Your task to perform on an android device: Open location settings Image 0: 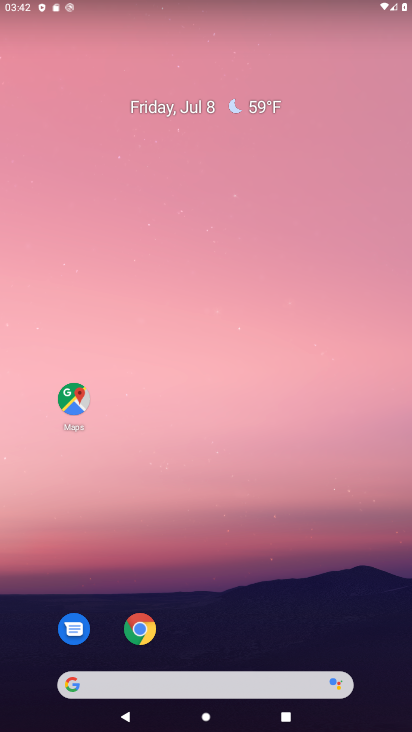
Step 0: press home button
Your task to perform on an android device: Open location settings Image 1: 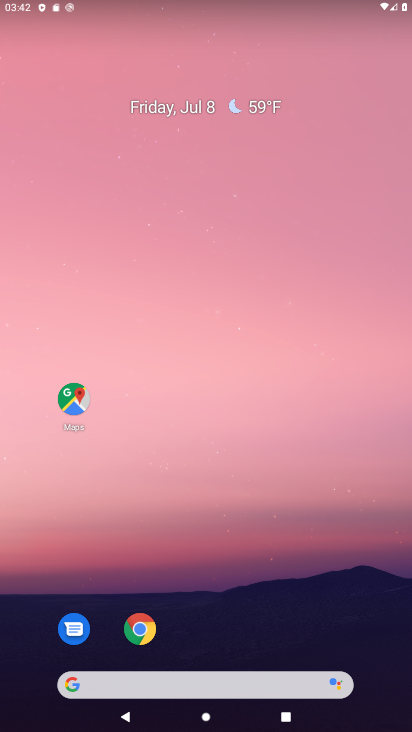
Step 1: click (137, 624)
Your task to perform on an android device: Open location settings Image 2: 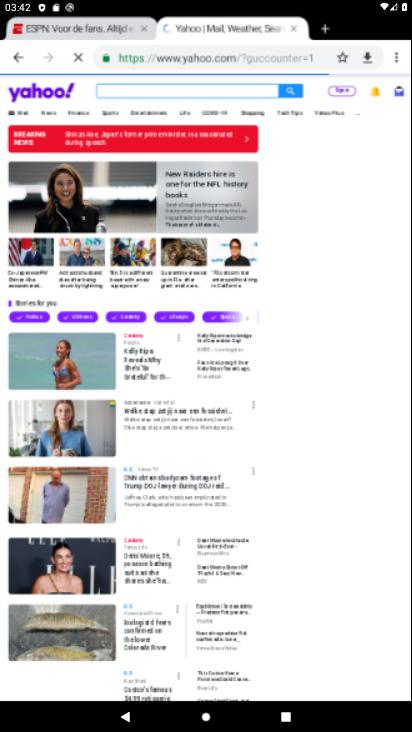
Step 2: press home button
Your task to perform on an android device: Open location settings Image 3: 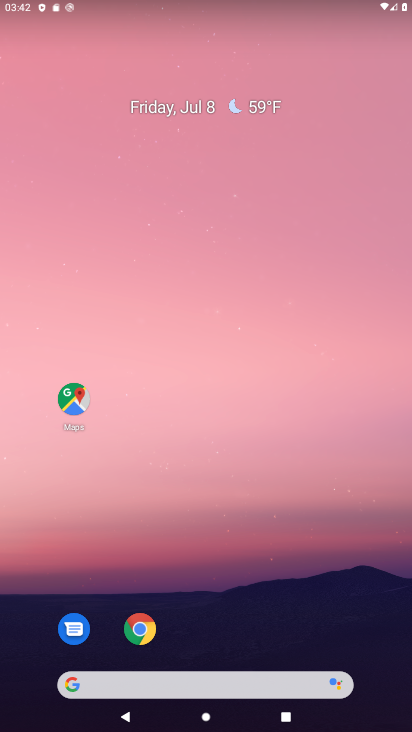
Step 3: drag from (209, 652) to (264, 11)
Your task to perform on an android device: Open location settings Image 4: 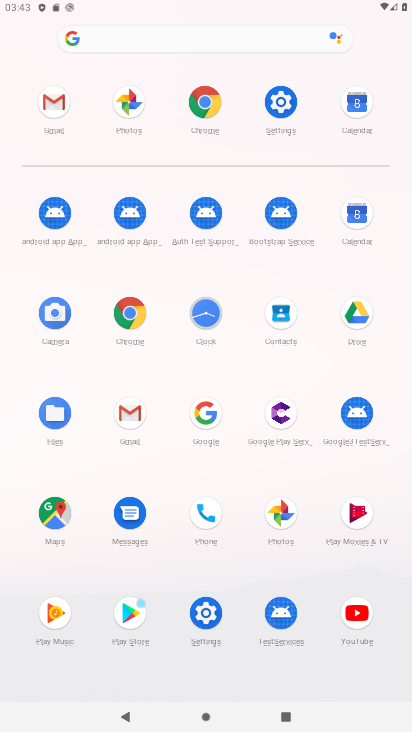
Step 4: click (280, 99)
Your task to perform on an android device: Open location settings Image 5: 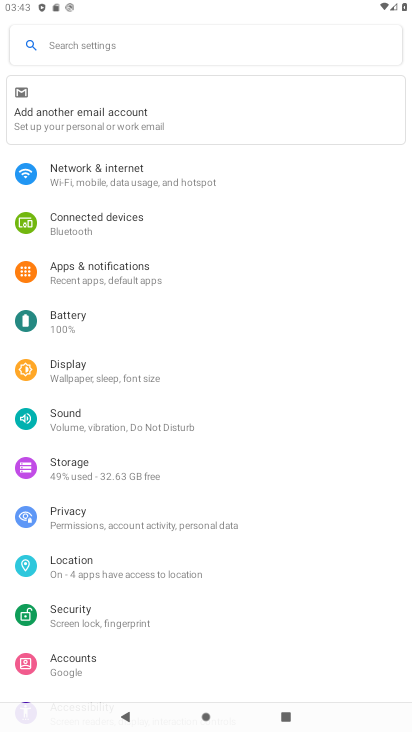
Step 5: click (101, 562)
Your task to perform on an android device: Open location settings Image 6: 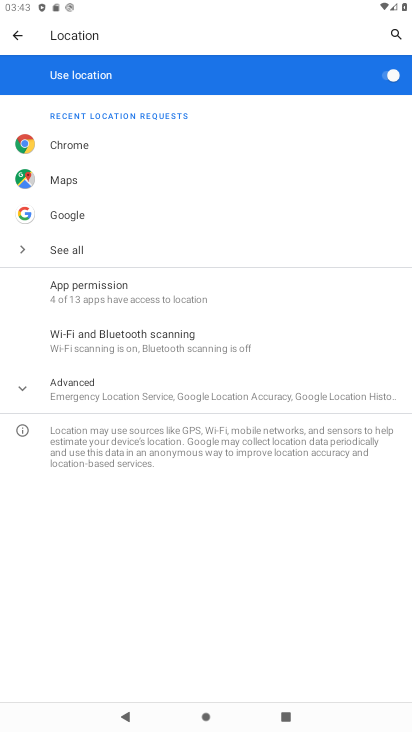
Step 6: click (18, 381)
Your task to perform on an android device: Open location settings Image 7: 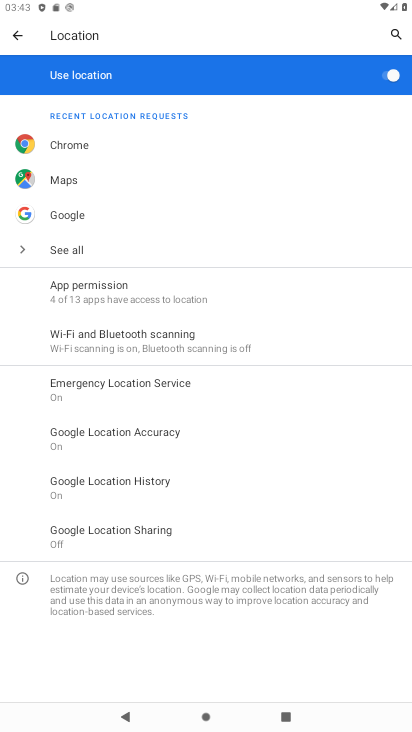
Step 7: task complete